Your task to perform on an android device: read, delete, or share a saved page in the chrome app Image 0: 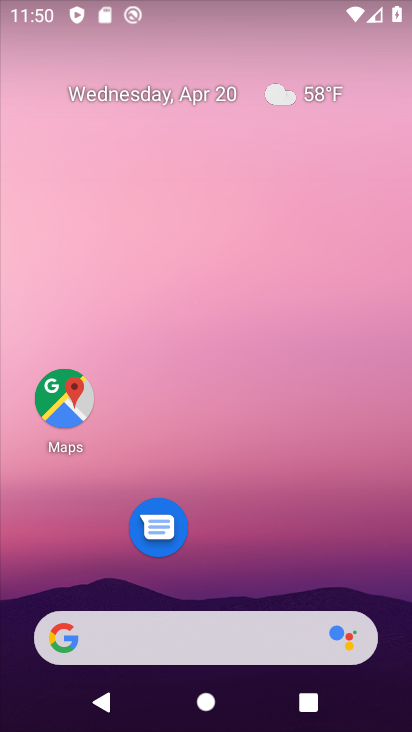
Step 0: drag from (223, 723) to (198, 95)
Your task to perform on an android device: read, delete, or share a saved page in the chrome app Image 1: 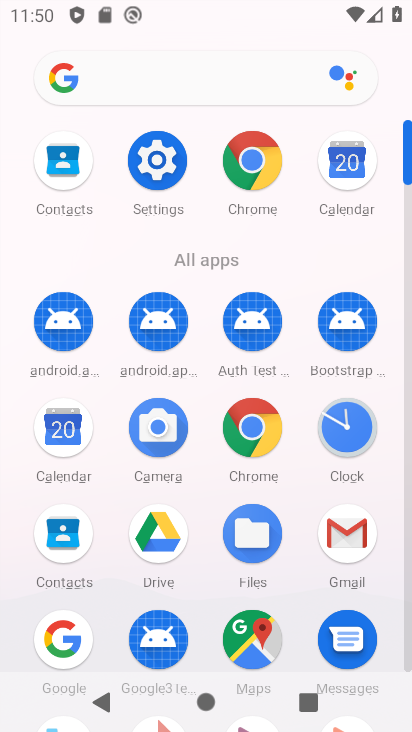
Step 1: click (252, 162)
Your task to perform on an android device: read, delete, or share a saved page in the chrome app Image 2: 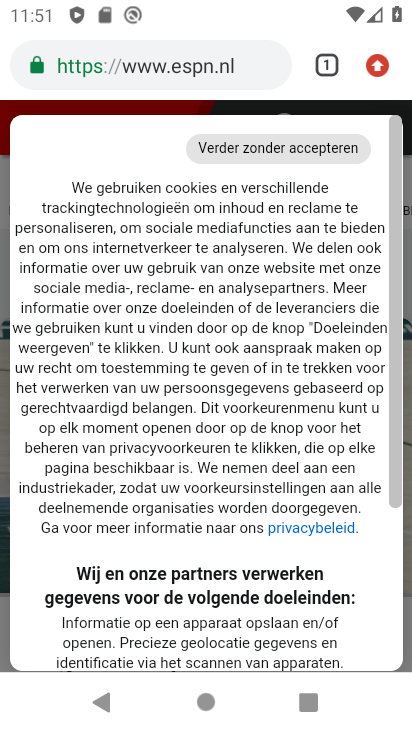
Step 2: click (376, 71)
Your task to perform on an android device: read, delete, or share a saved page in the chrome app Image 3: 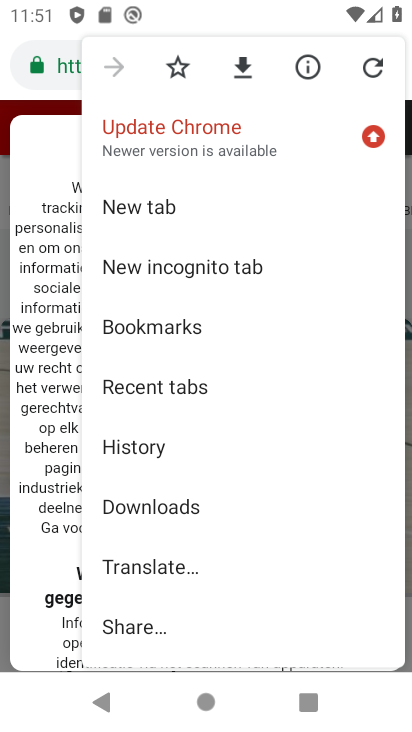
Step 3: click (142, 503)
Your task to perform on an android device: read, delete, or share a saved page in the chrome app Image 4: 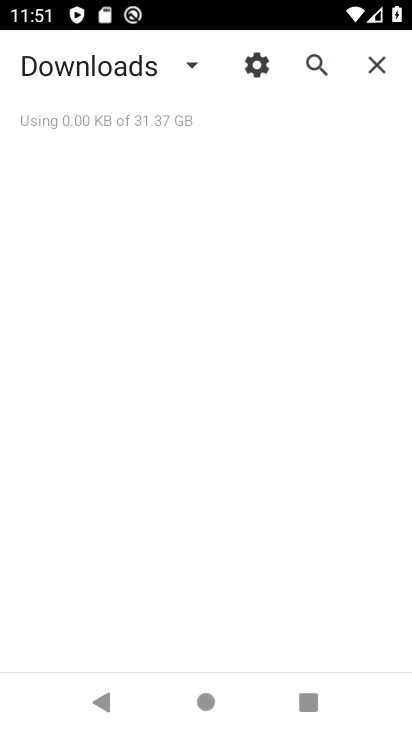
Step 4: click (191, 63)
Your task to perform on an android device: read, delete, or share a saved page in the chrome app Image 5: 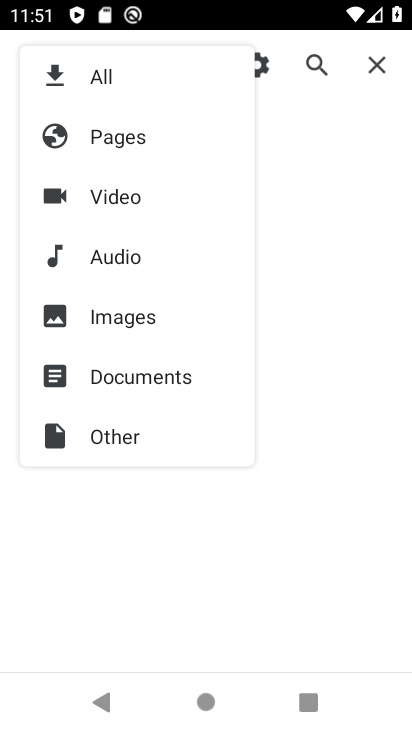
Step 5: click (119, 131)
Your task to perform on an android device: read, delete, or share a saved page in the chrome app Image 6: 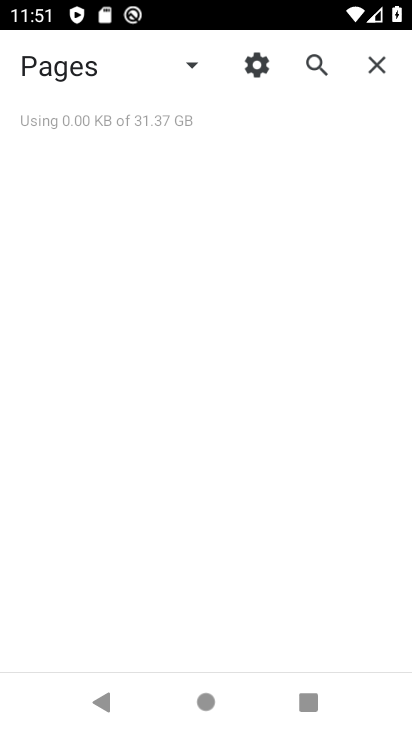
Step 6: task complete